Your task to perform on an android device: Open Google Maps and go to "Timeline" Image 0: 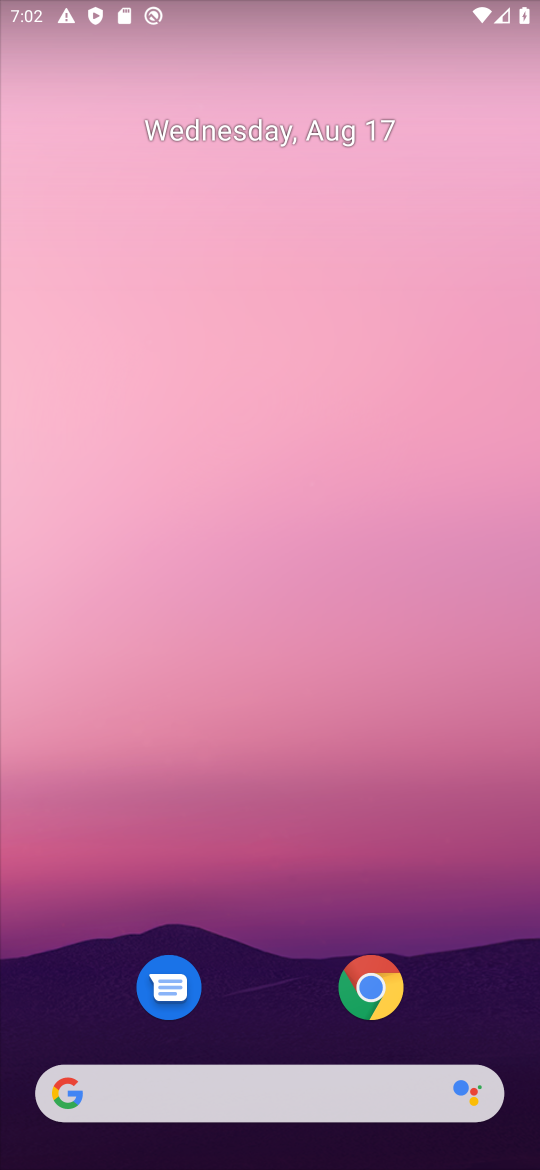
Step 0: drag from (499, 796) to (301, 40)
Your task to perform on an android device: Open Google Maps and go to "Timeline" Image 1: 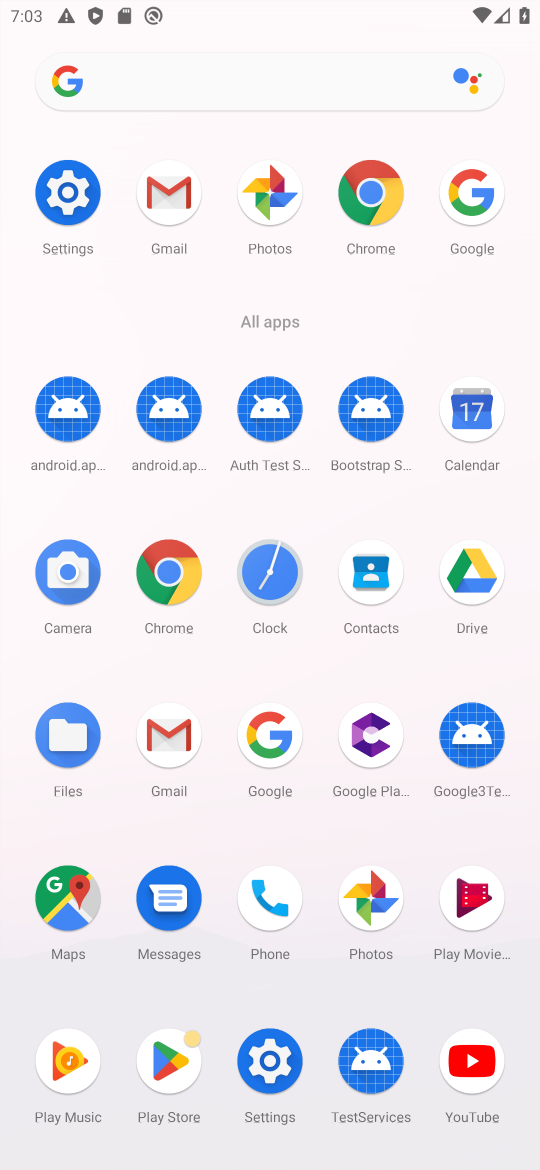
Step 1: click (78, 899)
Your task to perform on an android device: Open Google Maps and go to "Timeline" Image 2: 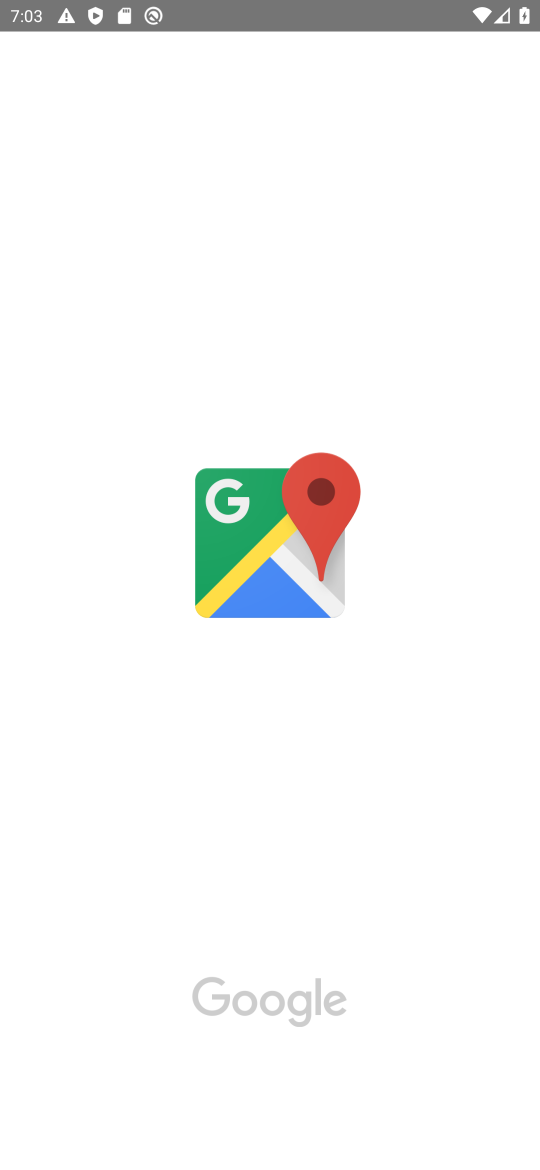
Step 2: task complete